Your task to perform on an android device: Show me the alarms in the clock app Image 0: 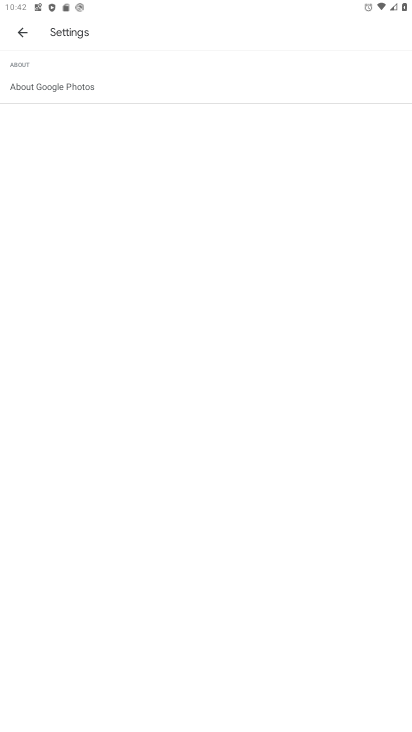
Step 0: press home button
Your task to perform on an android device: Show me the alarms in the clock app Image 1: 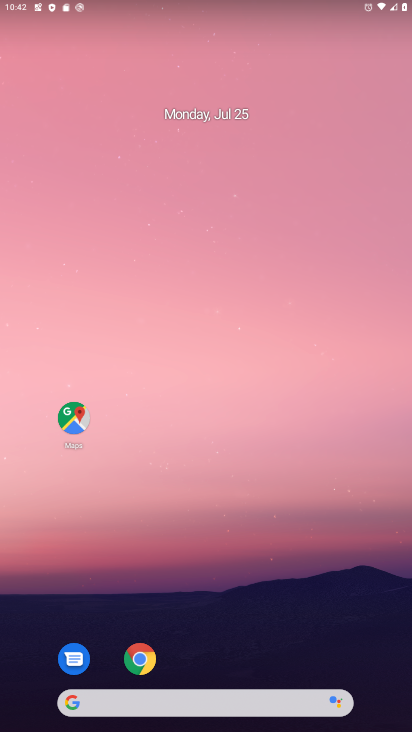
Step 1: drag from (211, 687) to (207, 85)
Your task to perform on an android device: Show me the alarms in the clock app Image 2: 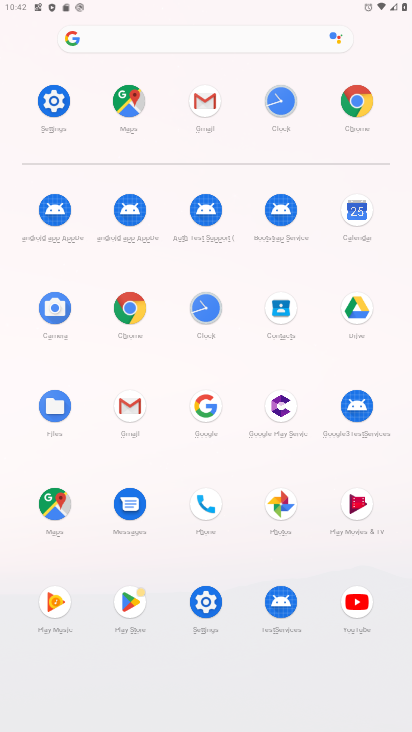
Step 2: click (199, 318)
Your task to perform on an android device: Show me the alarms in the clock app Image 3: 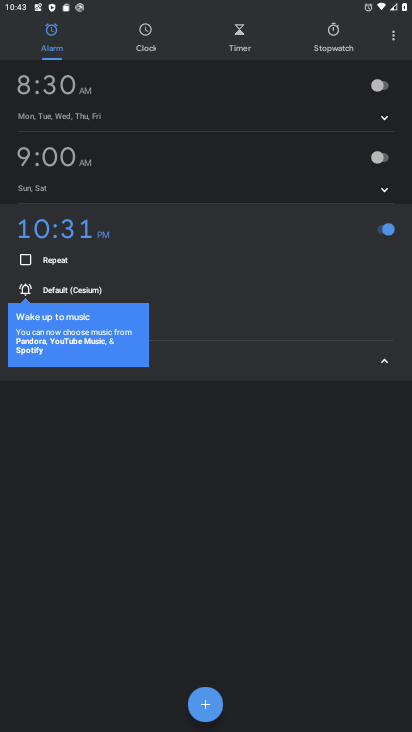
Step 3: task complete